Your task to perform on an android device: Go to accessibility settings Image 0: 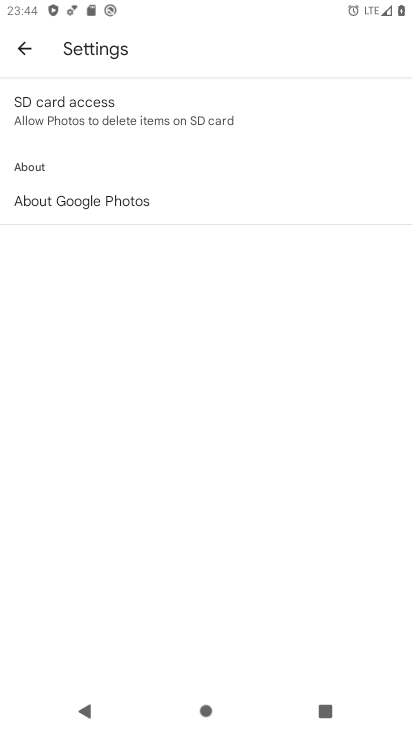
Step 0: drag from (218, 560) to (252, 300)
Your task to perform on an android device: Go to accessibility settings Image 1: 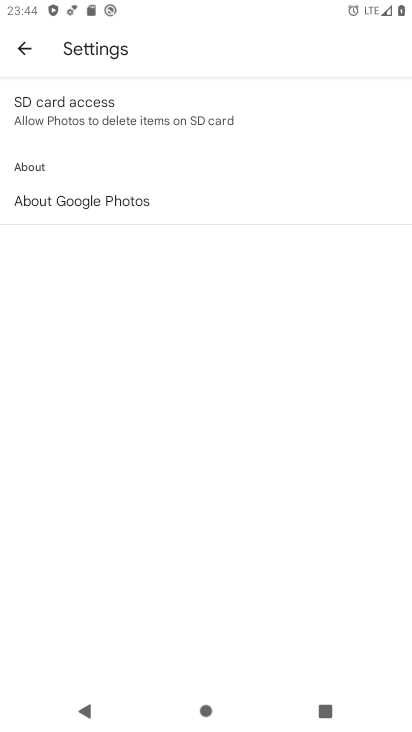
Step 1: drag from (381, 208) to (345, 181)
Your task to perform on an android device: Go to accessibility settings Image 2: 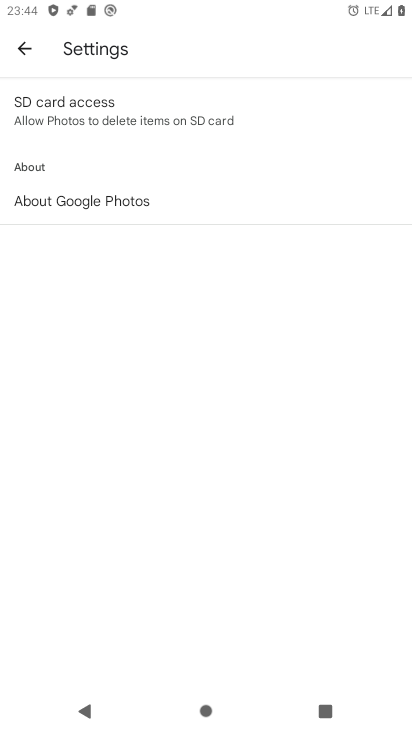
Step 2: drag from (248, 394) to (327, 160)
Your task to perform on an android device: Go to accessibility settings Image 3: 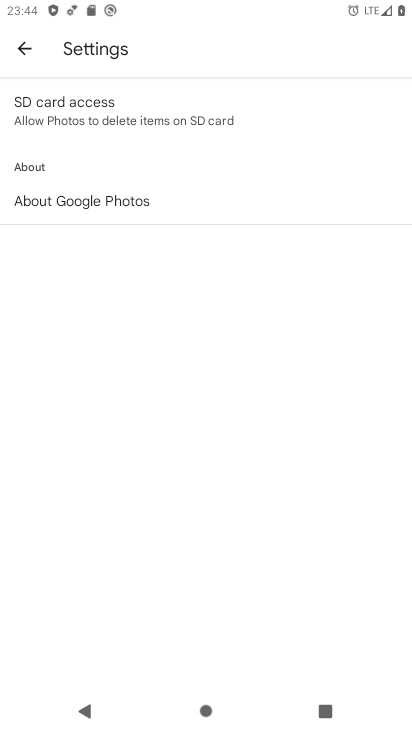
Step 3: press home button
Your task to perform on an android device: Go to accessibility settings Image 4: 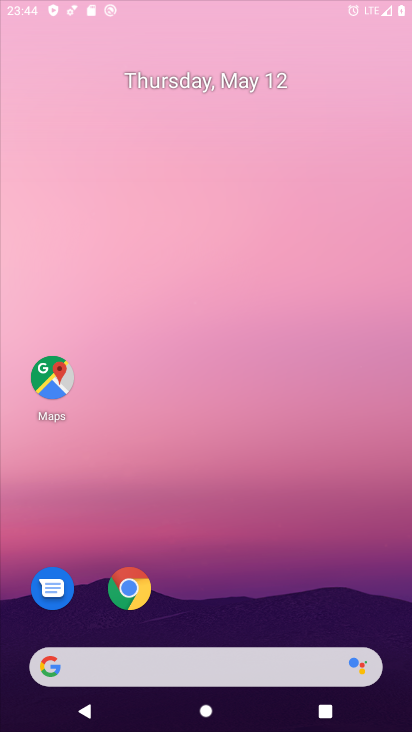
Step 4: drag from (194, 651) to (110, 2)
Your task to perform on an android device: Go to accessibility settings Image 5: 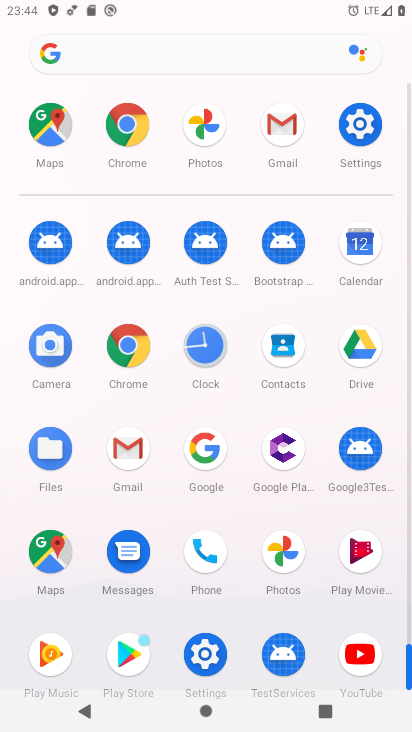
Step 5: drag from (236, 589) to (220, 225)
Your task to perform on an android device: Go to accessibility settings Image 6: 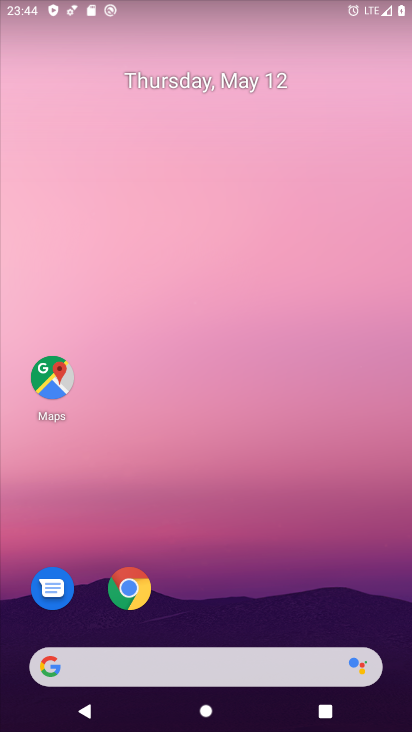
Step 6: drag from (170, 561) to (205, 158)
Your task to perform on an android device: Go to accessibility settings Image 7: 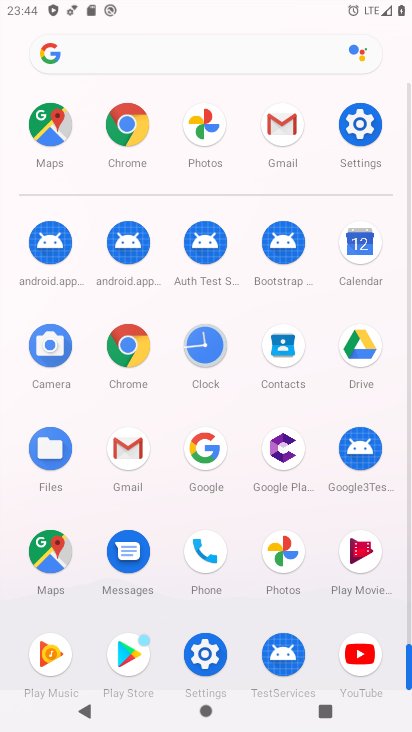
Step 7: click (202, 656)
Your task to perform on an android device: Go to accessibility settings Image 8: 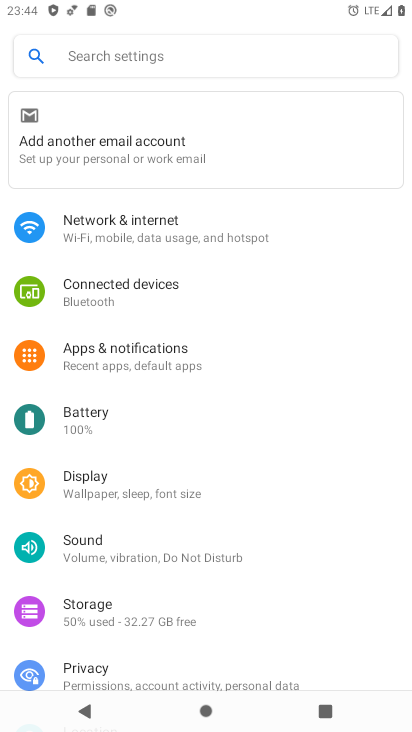
Step 8: drag from (211, 628) to (230, 197)
Your task to perform on an android device: Go to accessibility settings Image 9: 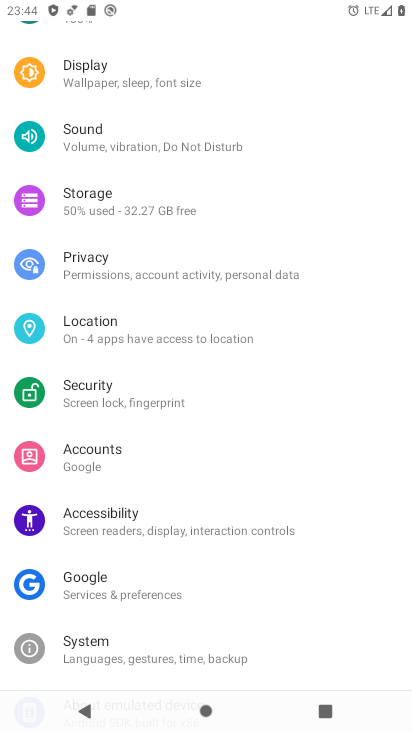
Step 9: drag from (133, 593) to (180, 321)
Your task to perform on an android device: Go to accessibility settings Image 10: 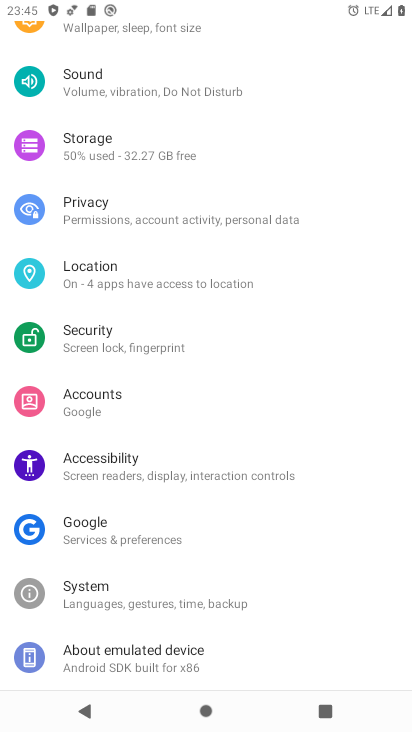
Step 10: click (148, 463)
Your task to perform on an android device: Go to accessibility settings Image 11: 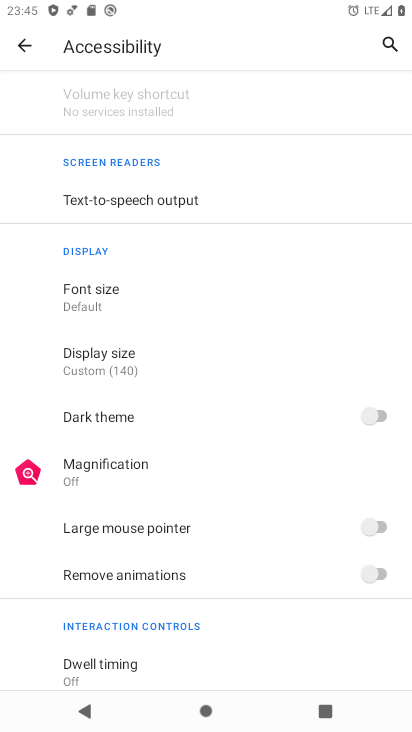
Step 11: task complete